Your task to perform on an android device: What's the weather going to be tomorrow? Image 0: 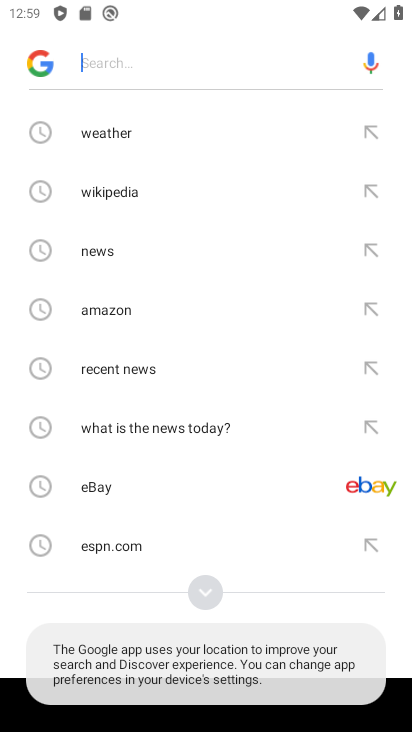
Step 0: press home button
Your task to perform on an android device: What's the weather going to be tomorrow? Image 1: 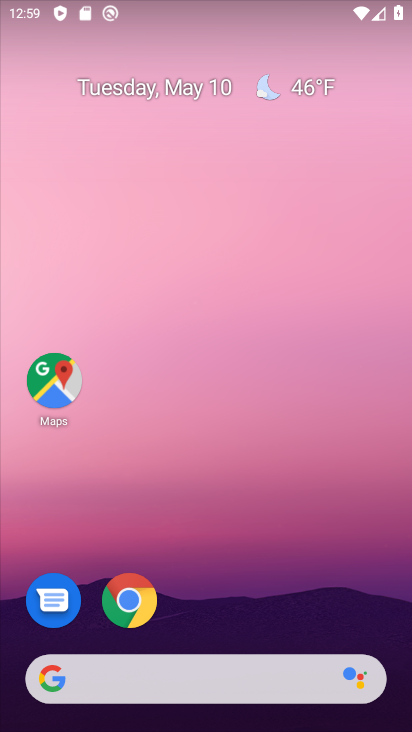
Step 1: click (303, 82)
Your task to perform on an android device: What's the weather going to be tomorrow? Image 2: 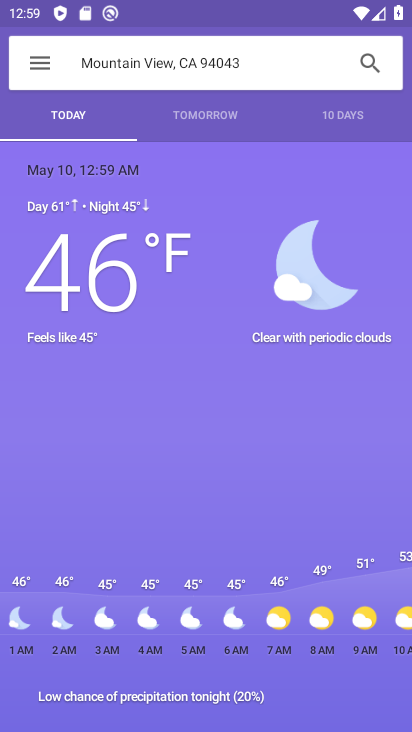
Step 2: click (197, 118)
Your task to perform on an android device: What's the weather going to be tomorrow? Image 3: 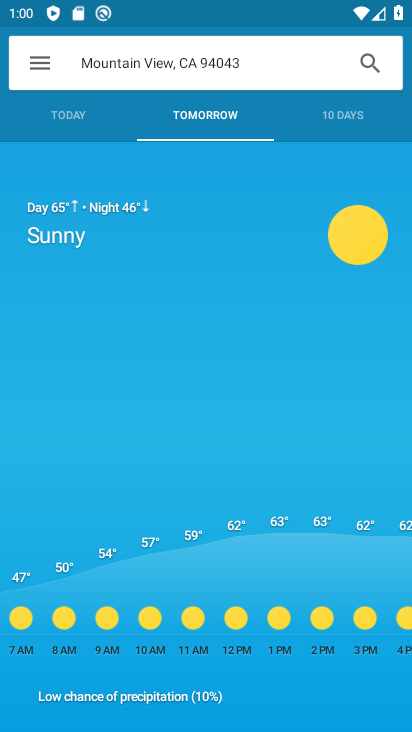
Step 3: task complete